Your task to perform on an android device: install app "NewsBreak: Local News & Alerts" Image 0: 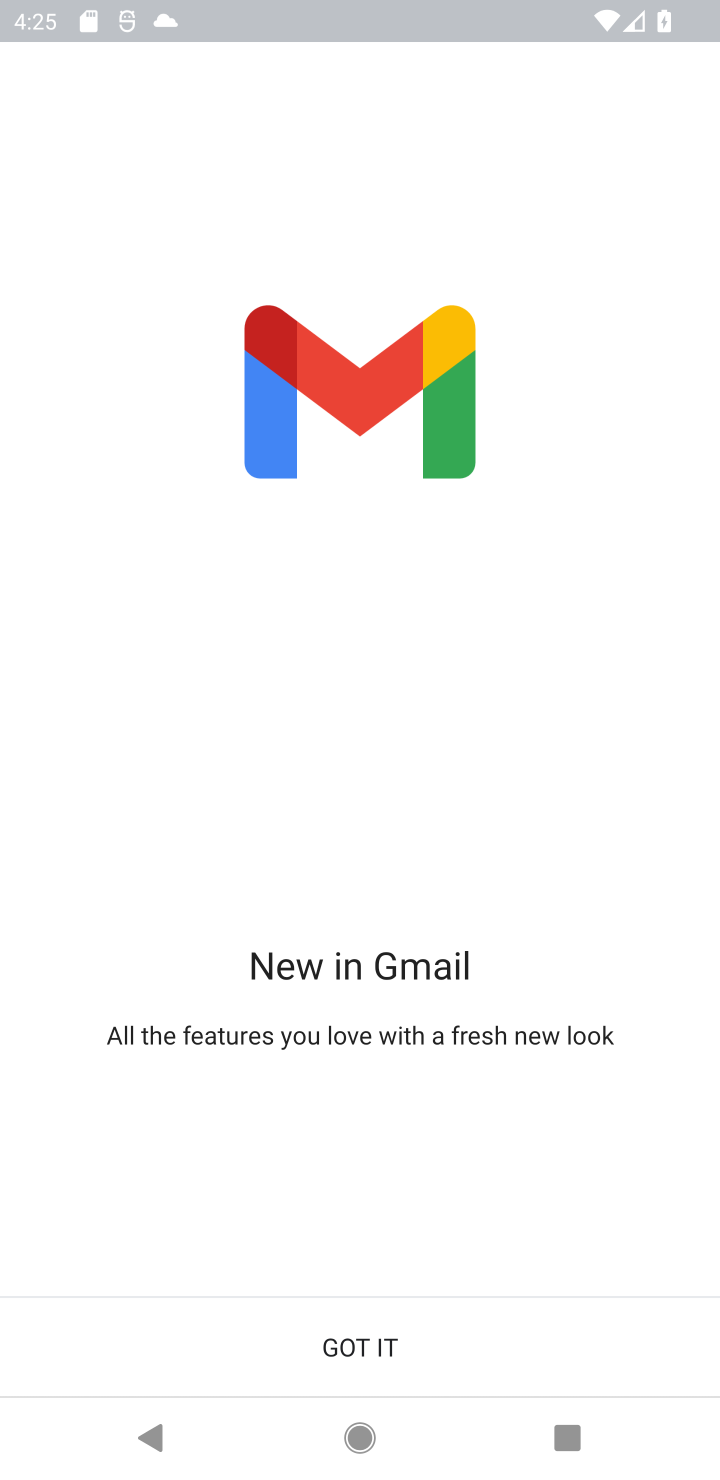
Step 0: press home button
Your task to perform on an android device: install app "NewsBreak: Local News & Alerts" Image 1: 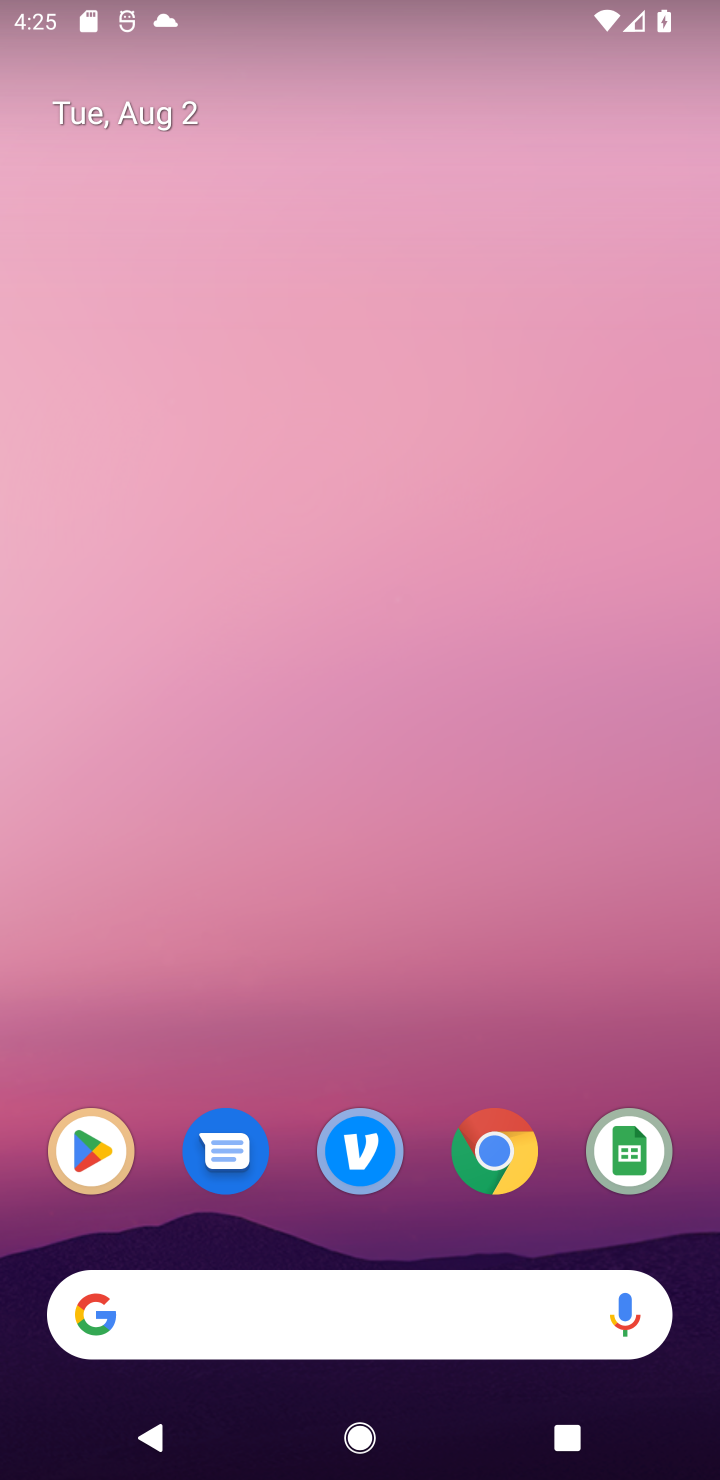
Step 1: drag from (297, 1380) to (503, 330)
Your task to perform on an android device: install app "NewsBreak: Local News & Alerts" Image 2: 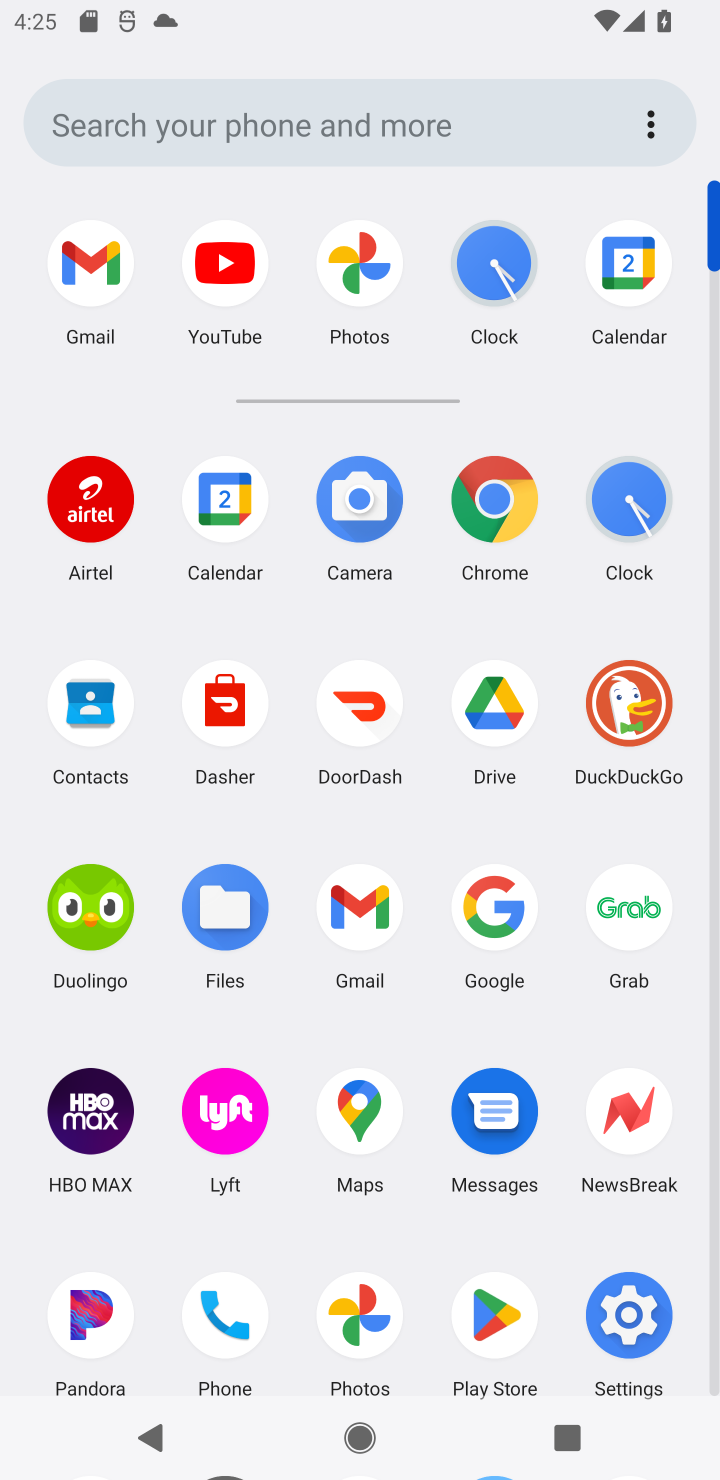
Step 2: click (495, 1323)
Your task to perform on an android device: install app "NewsBreak: Local News & Alerts" Image 3: 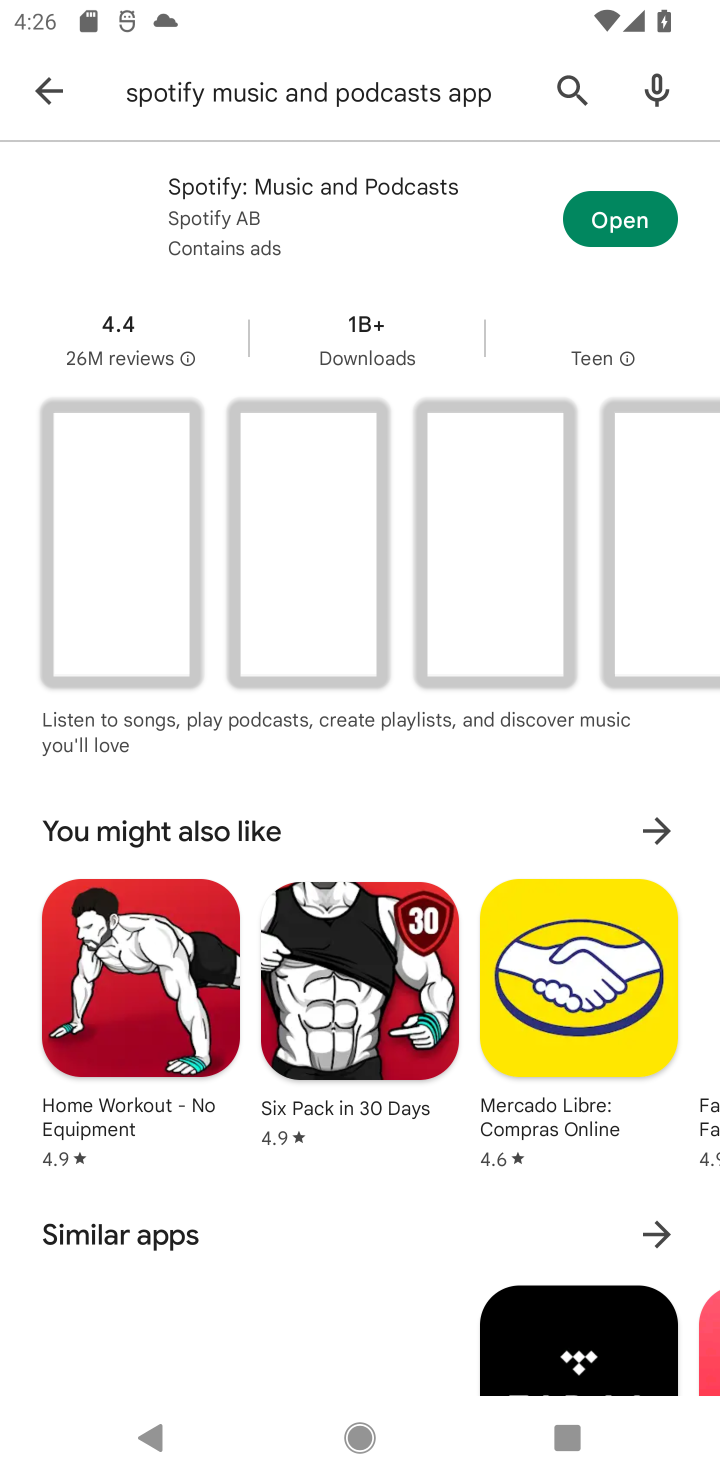
Step 3: click (30, 101)
Your task to perform on an android device: install app "NewsBreak: Local News & Alerts" Image 4: 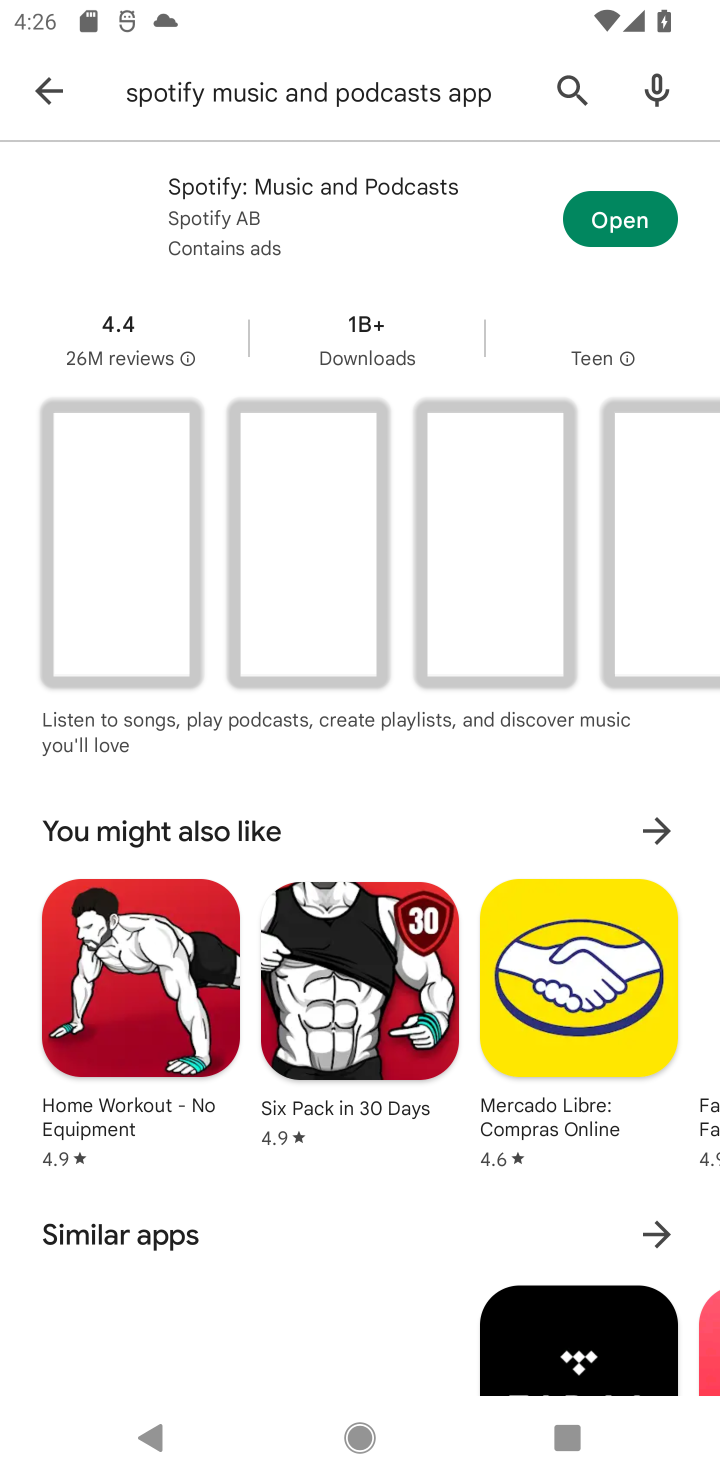
Step 4: click (48, 101)
Your task to perform on an android device: install app "NewsBreak: Local News & Alerts" Image 5: 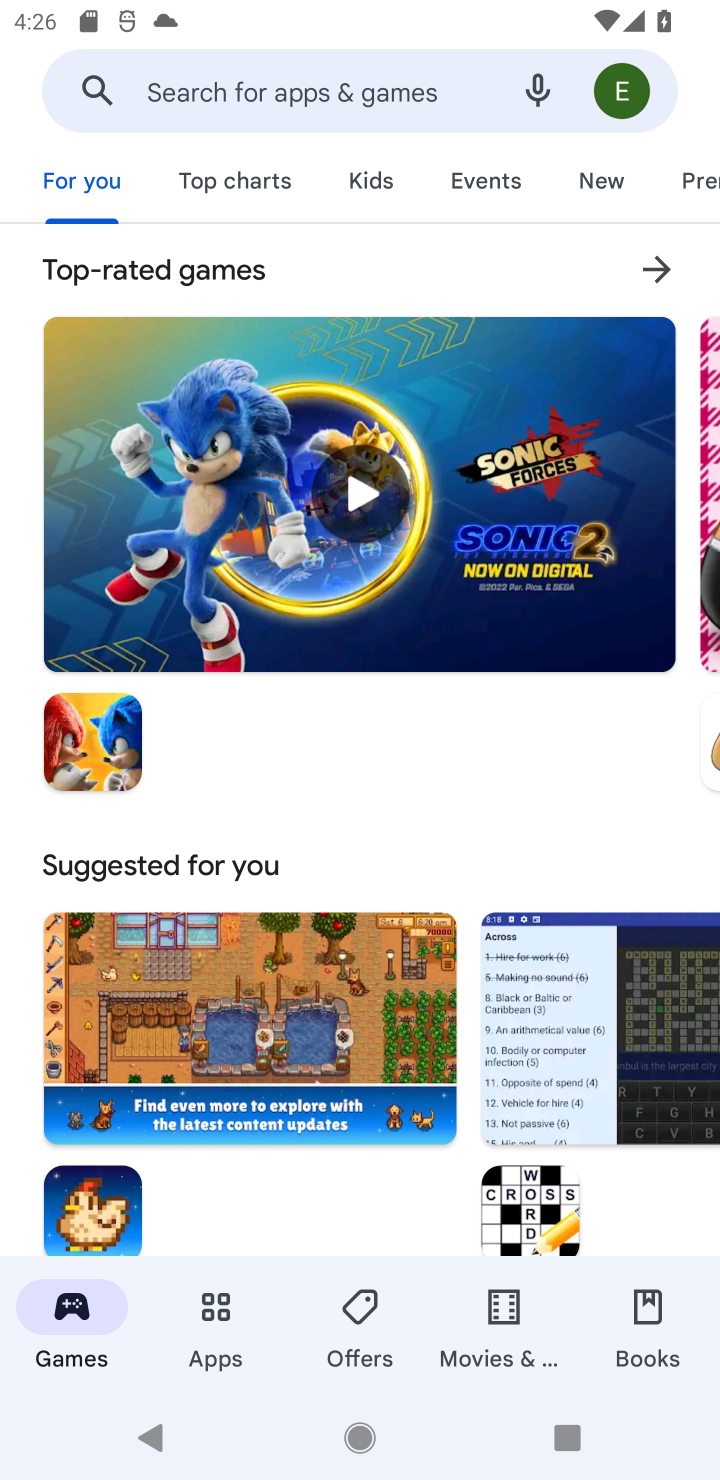
Step 5: click (205, 95)
Your task to perform on an android device: install app "NewsBreak: Local News & Alerts" Image 6: 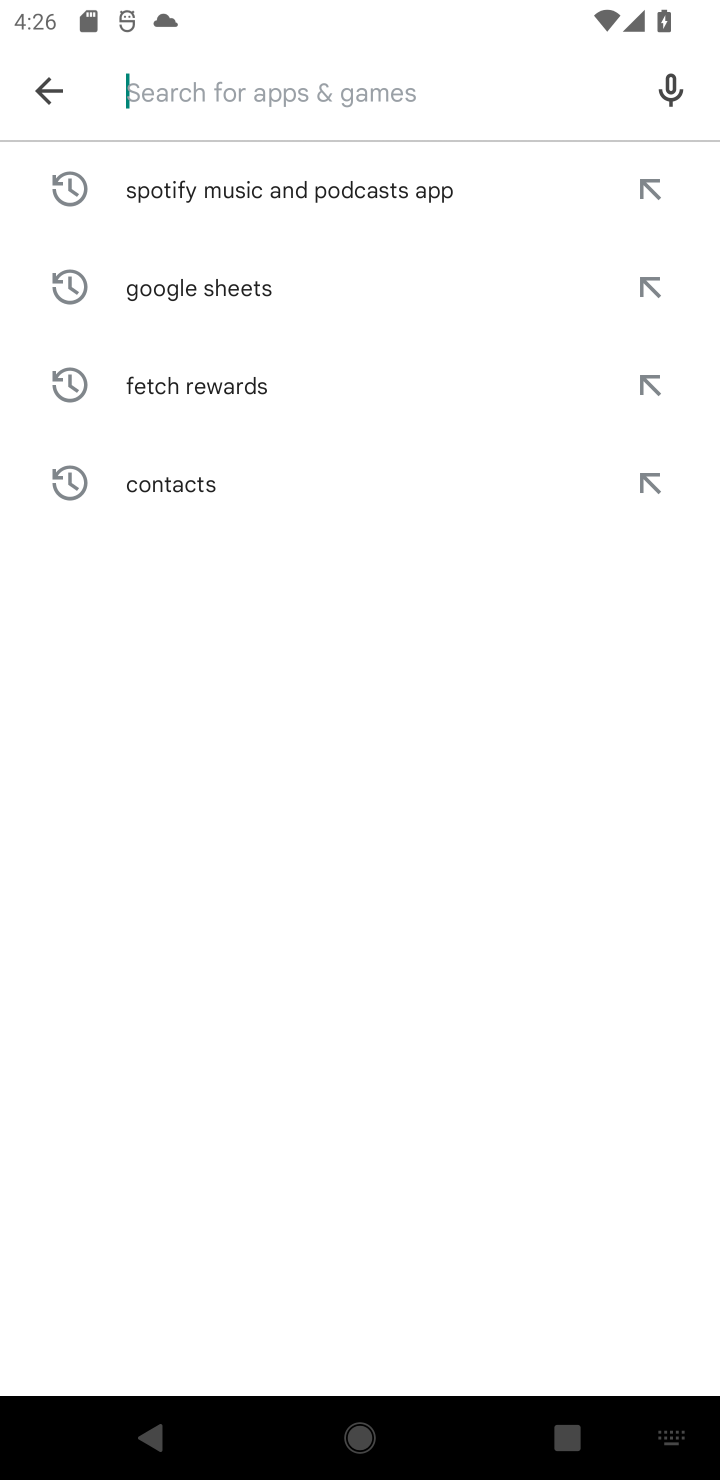
Step 6: type "NewsBreak: Local News & Alerts"
Your task to perform on an android device: install app "NewsBreak: Local News & Alerts" Image 7: 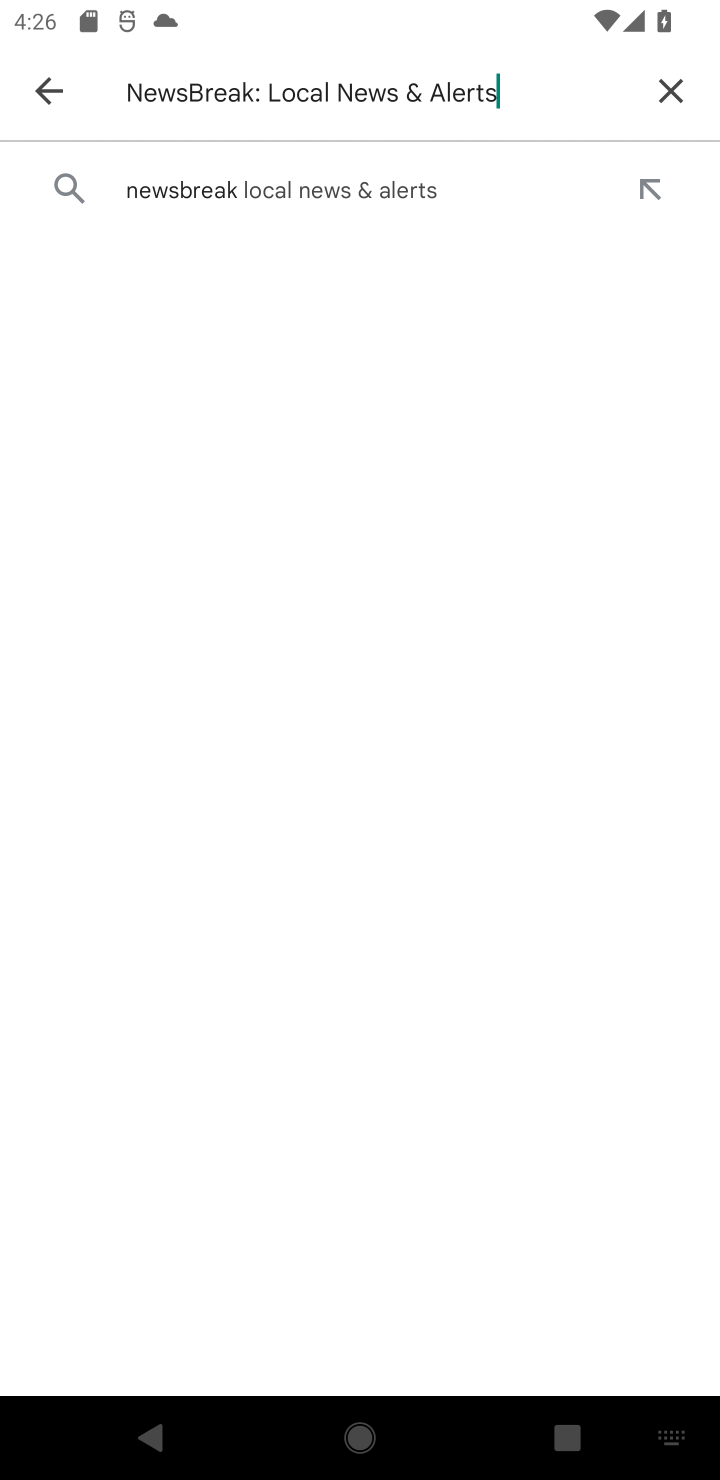
Step 7: click (379, 185)
Your task to perform on an android device: install app "NewsBreak: Local News & Alerts" Image 8: 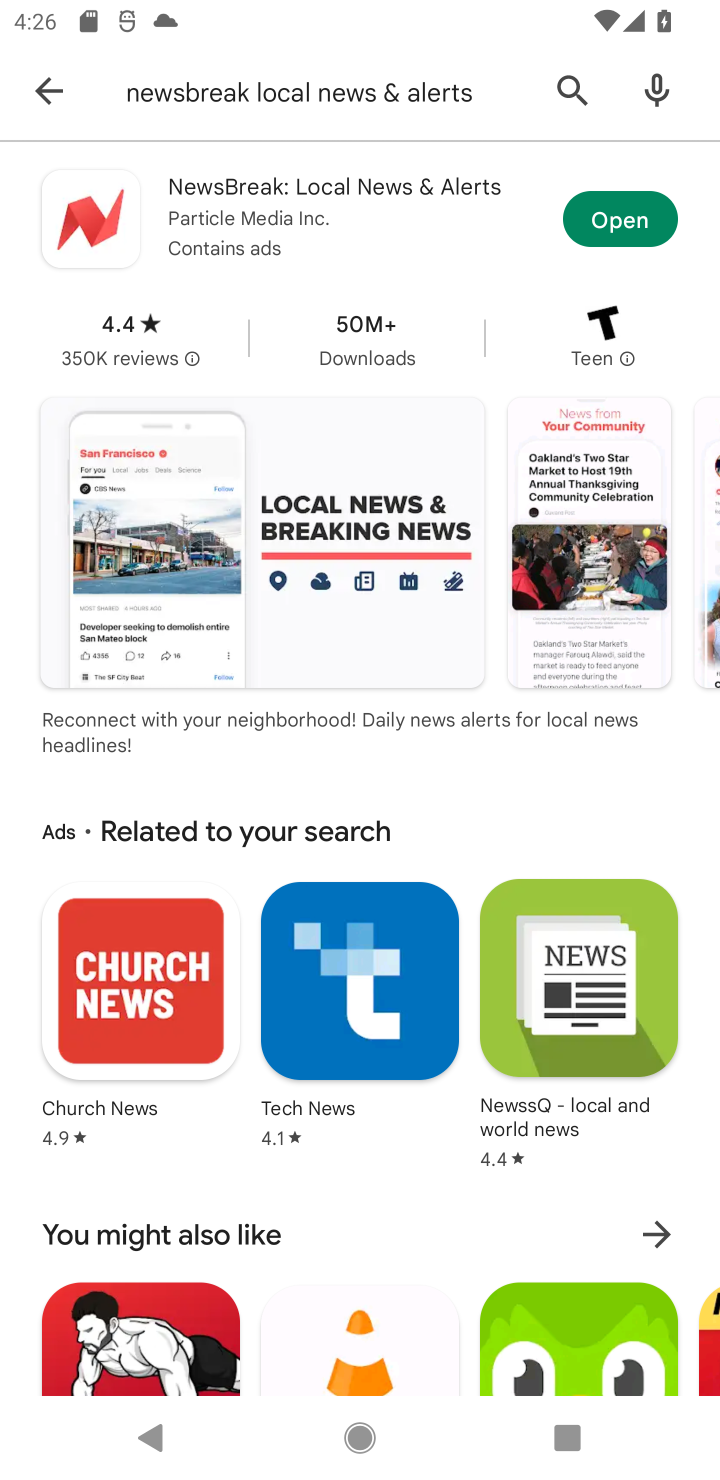
Step 8: task complete